Your task to perform on an android device: Open calendar and show me the first week of next month Image 0: 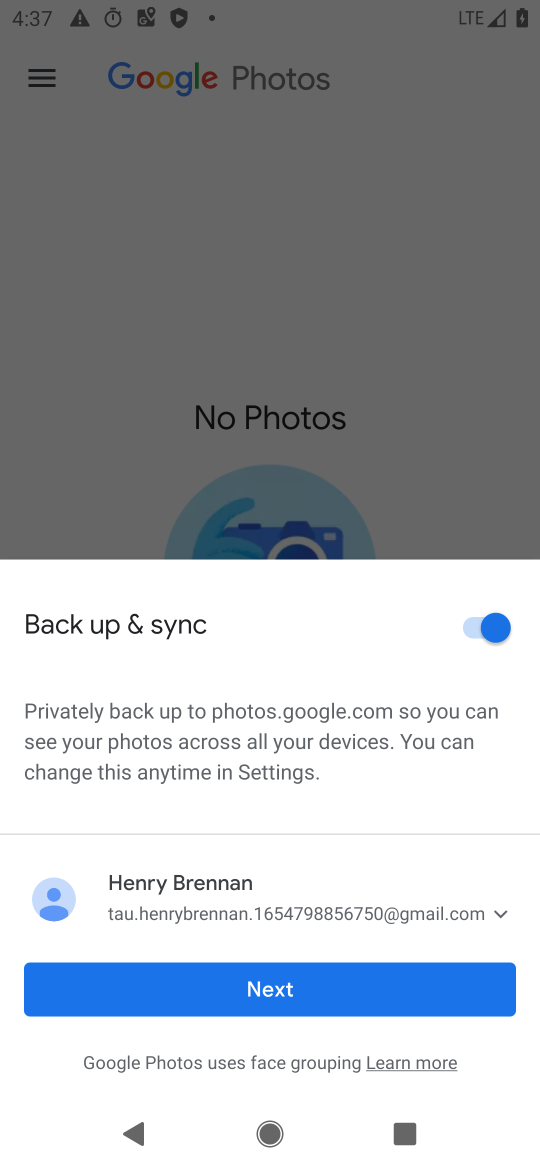
Step 0: press home button
Your task to perform on an android device: Open calendar and show me the first week of next month Image 1: 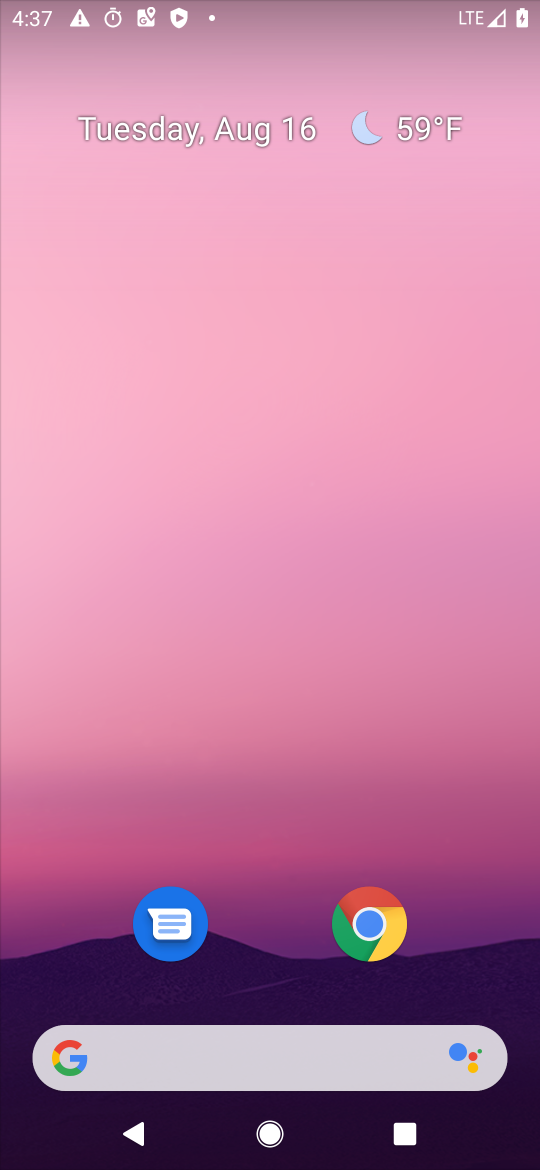
Step 1: click (252, 128)
Your task to perform on an android device: Open calendar and show me the first week of next month Image 2: 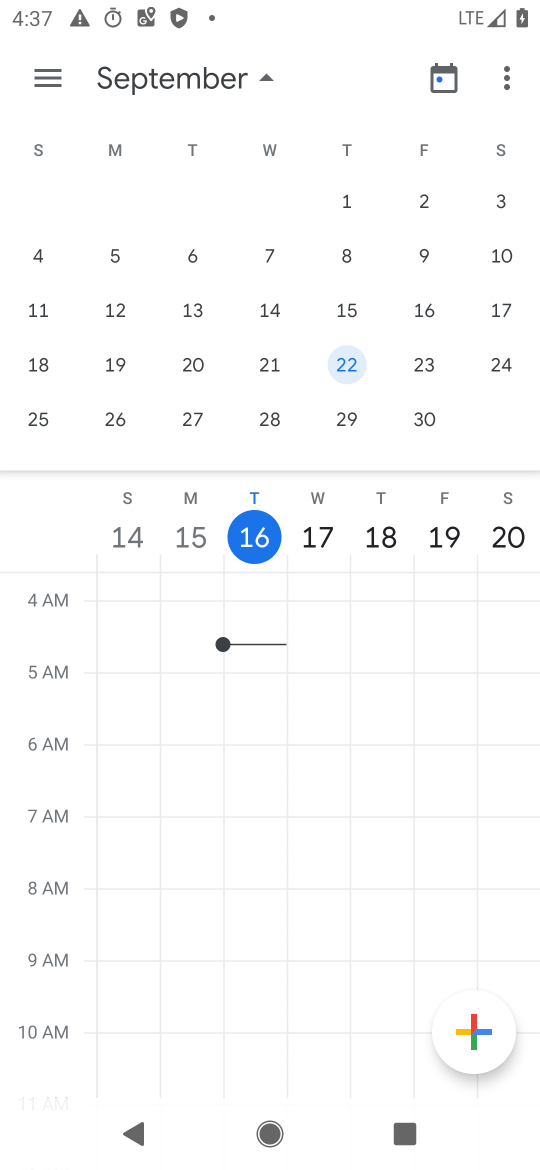
Step 2: task complete